Your task to perform on an android device: Go to privacy settings Image 0: 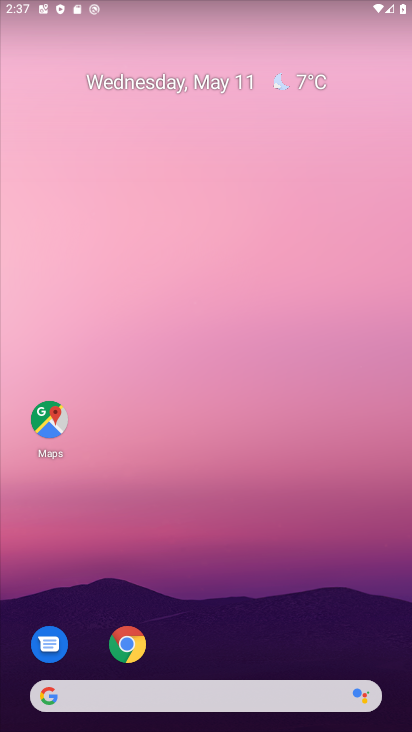
Step 0: drag from (194, 560) to (202, 10)
Your task to perform on an android device: Go to privacy settings Image 1: 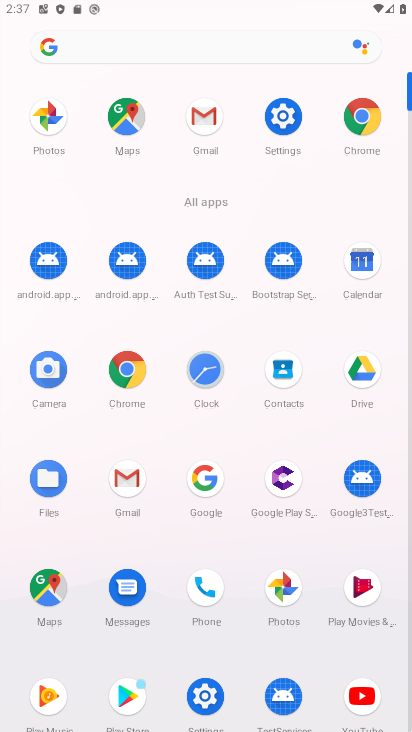
Step 1: click (280, 128)
Your task to perform on an android device: Go to privacy settings Image 2: 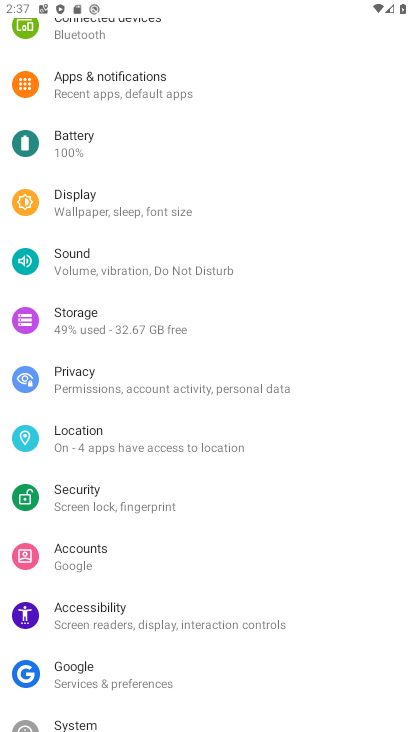
Step 2: click (143, 386)
Your task to perform on an android device: Go to privacy settings Image 3: 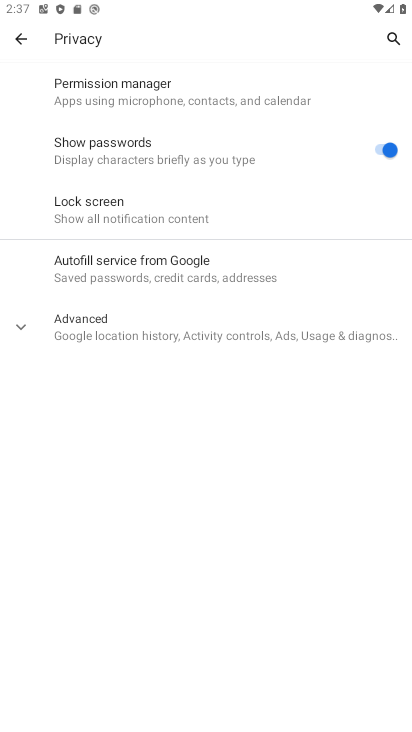
Step 3: task complete